Your task to perform on an android device: turn on sleep mode Image 0: 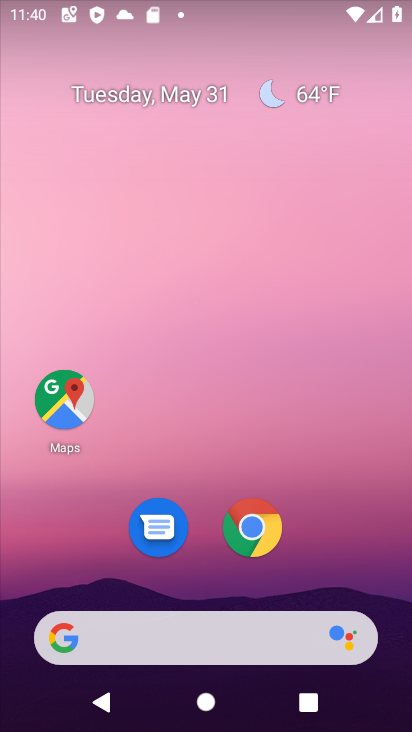
Step 0: drag from (171, 640) to (302, 0)
Your task to perform on an android device: turn on sleep mode Image 1: 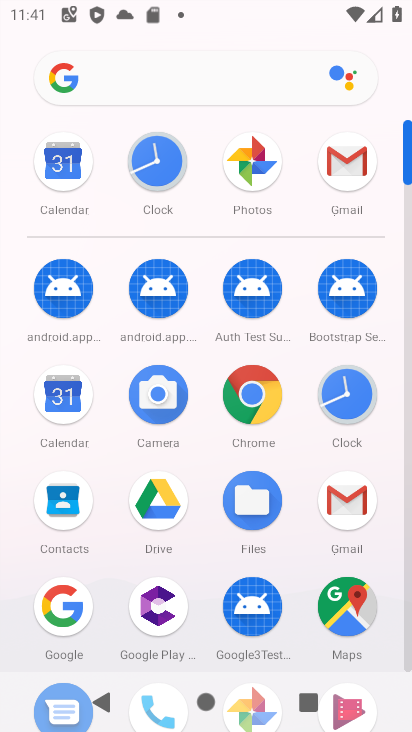
Step 1: drag from (177, 609) to (339, 195)
Your task to perform on an android device: turn on sleep mode Image 2: 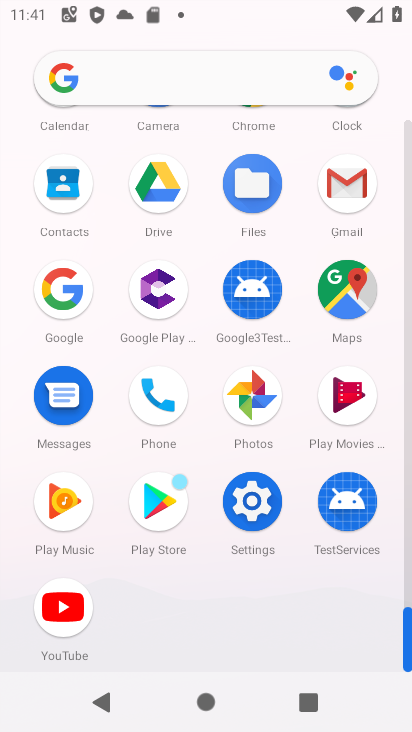
Step 2: click (250, 518)
Your task to perform on an android device: turn on sleep mode Image 3: 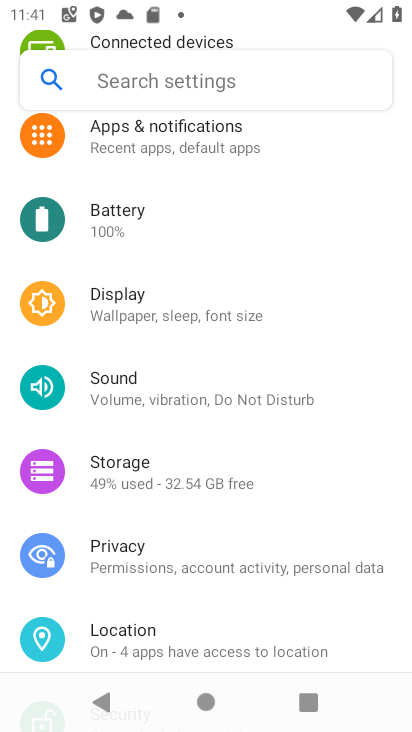
Step 3: click (160, 318)
Your task to perform on an android device: turn on sleep mode Image 4: 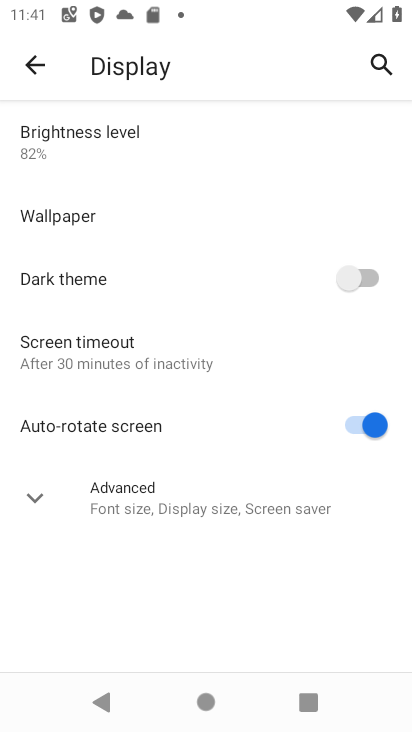
Step 4: task complete